Your task to perform on an android device: Clear all items from cart on bestbuy. Search for apple airpods pro on bestbuy, select the first entry, and add it to the cart. Image 0: 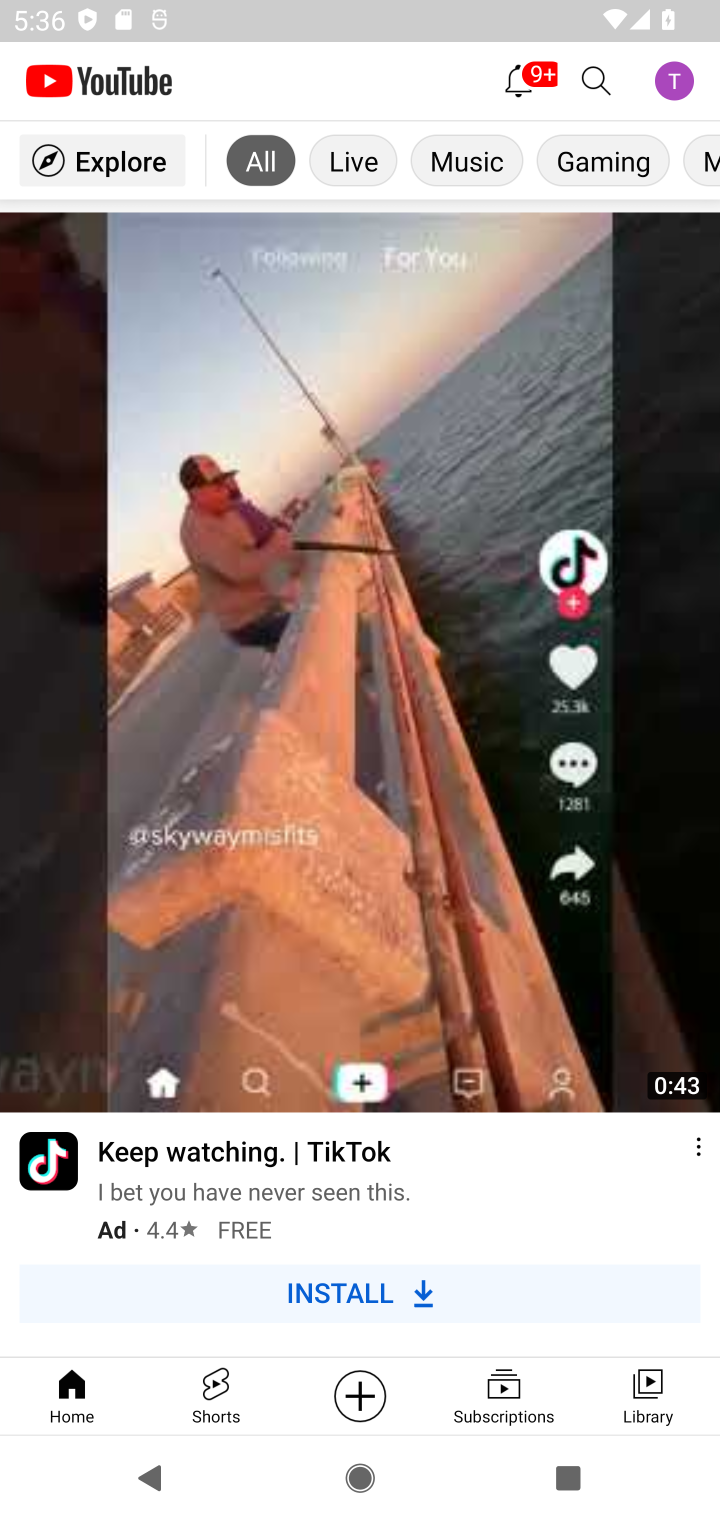
Step 0: press home button
Your task to perform on an android device: Clear all items from cart on bestbuy. Search for apple airpods pro on bestbuy, select the first entry, and add it to the cart. Image 1: 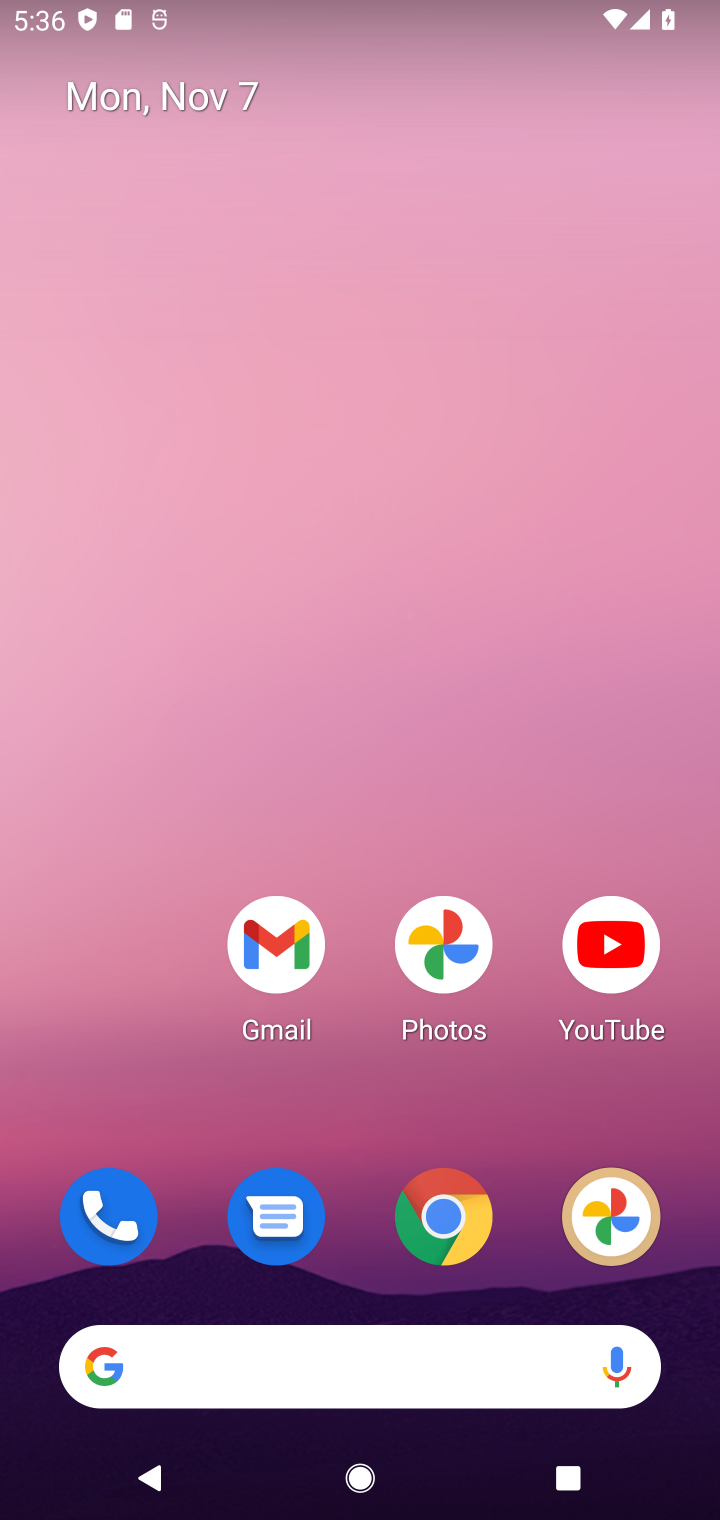
Step 1: drag from (355, 791) to (417, 0)
Your task to perform on an android device: Clear all items from cart on bestbuy. Search for apple airpods pro on bestbuy, select the first entry, and add it to the cart. Image 2: 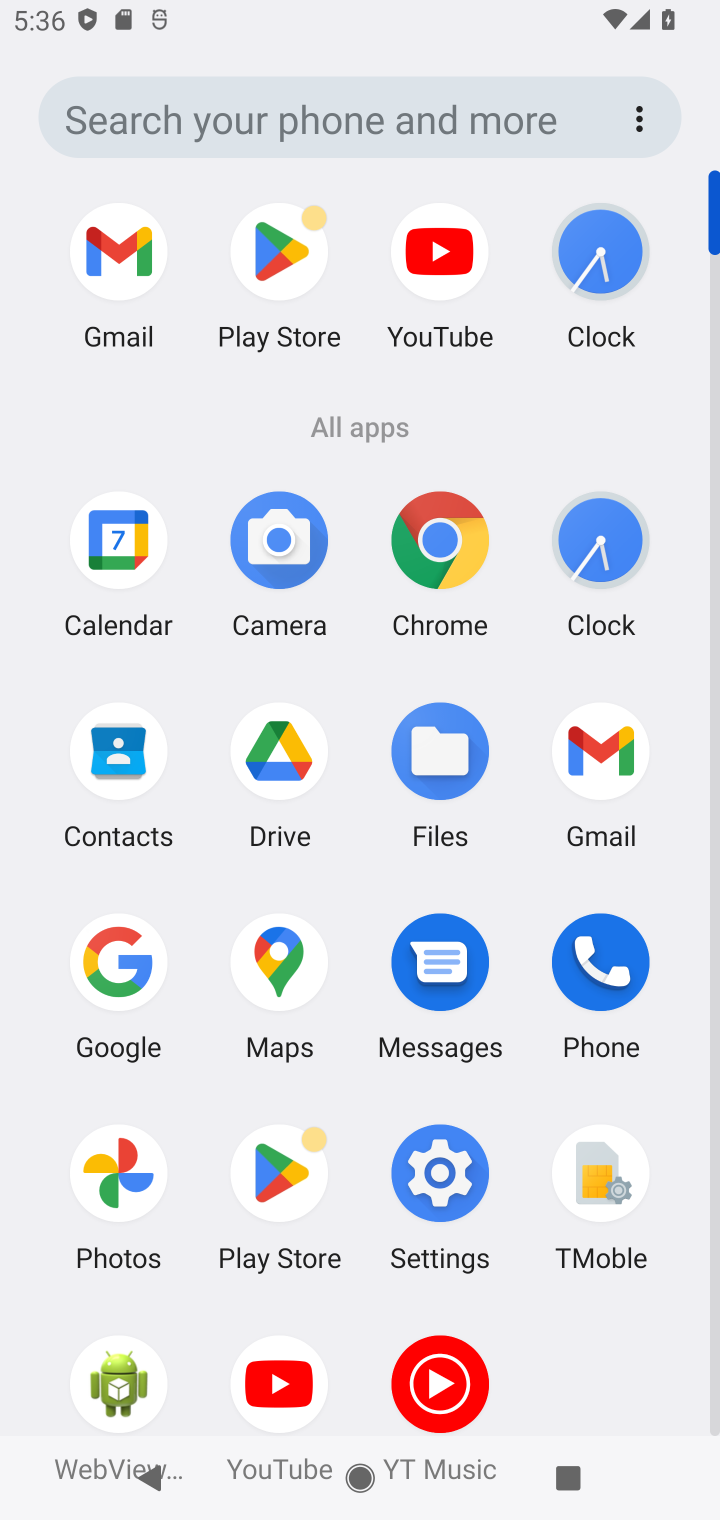
Step 2: click (441, 549)
Your task to perform on an android device: Clear all items from cart on bestbuy. Search for apple airpods pro on bestbuy, select the first entry, and add it to the cart. Image 3: 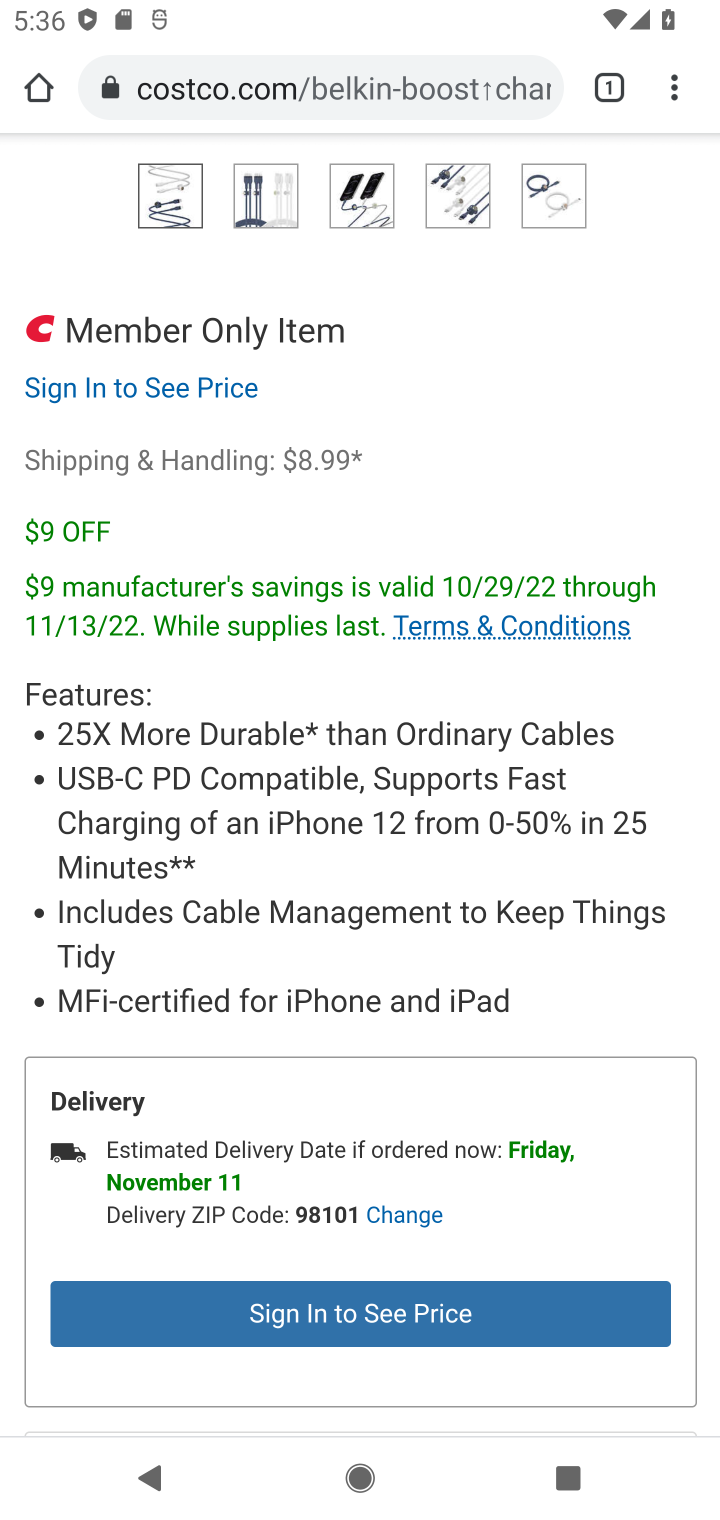
Step 3: click (330, 90)
Your task to perform on an android device: Clear all items from cart on bestbuy. Search for apple airpods pro on bestbuy, select the first entry, and add it to the cart. Image 4: 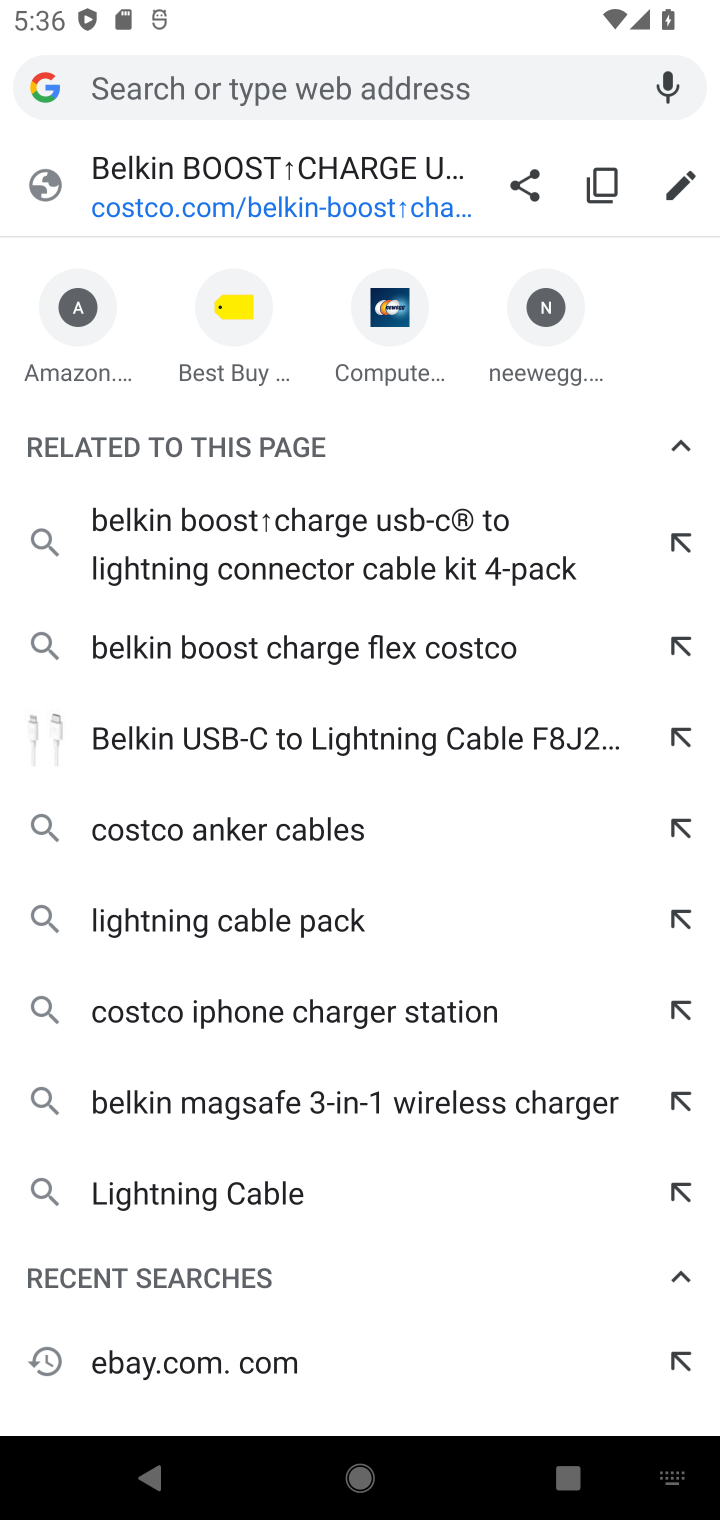
Step 4: type "bestbuy.com"
Your task to perform on an android device: Clear all items from cart on bestbuy. Search for apple airpods pro on bestbuy, select the first entry, and add it to the cart. Image 5: 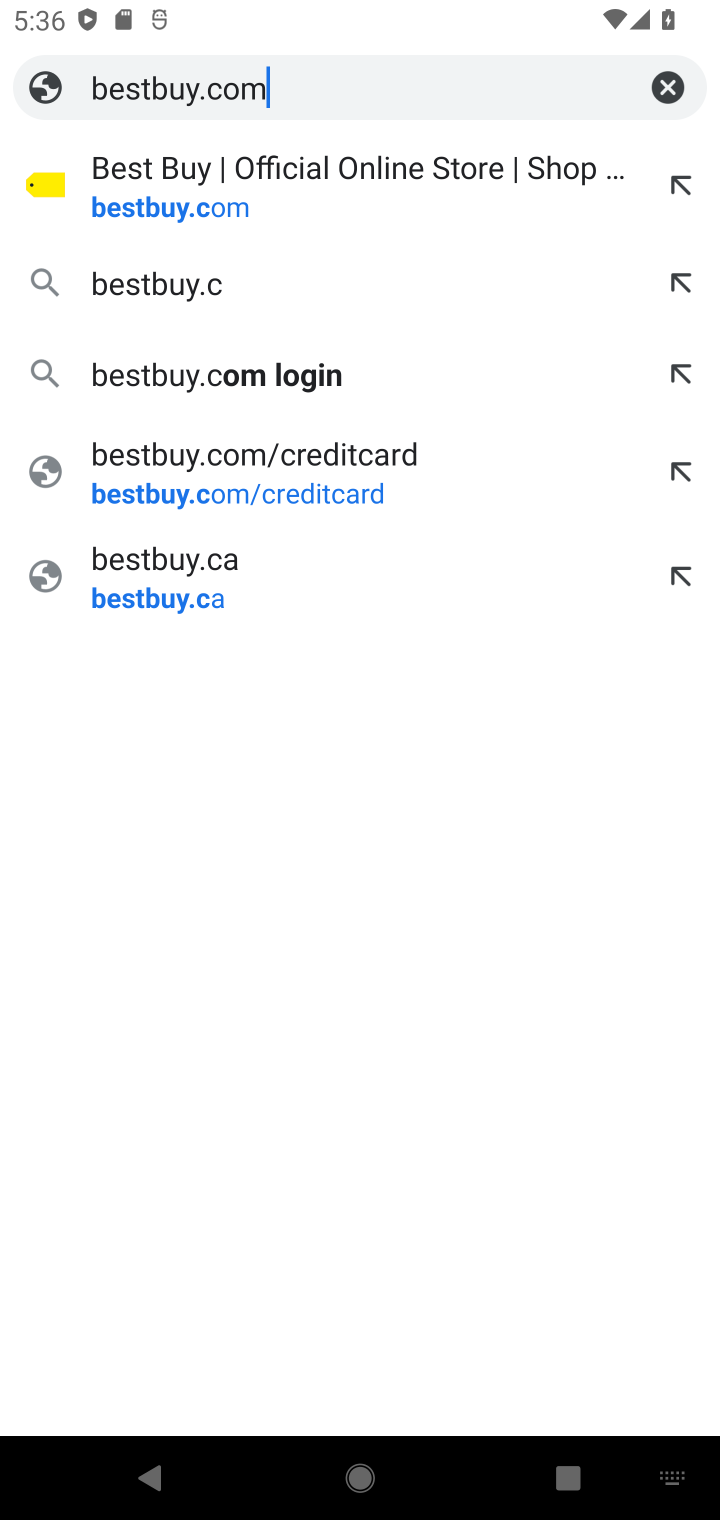
Step 5: press enter
Your task to perform on an android device: Clear all items from cart on bestbuy. Search for apple airpods pro on bestbuy, select the first entry, and add it to the cart. Image 6: 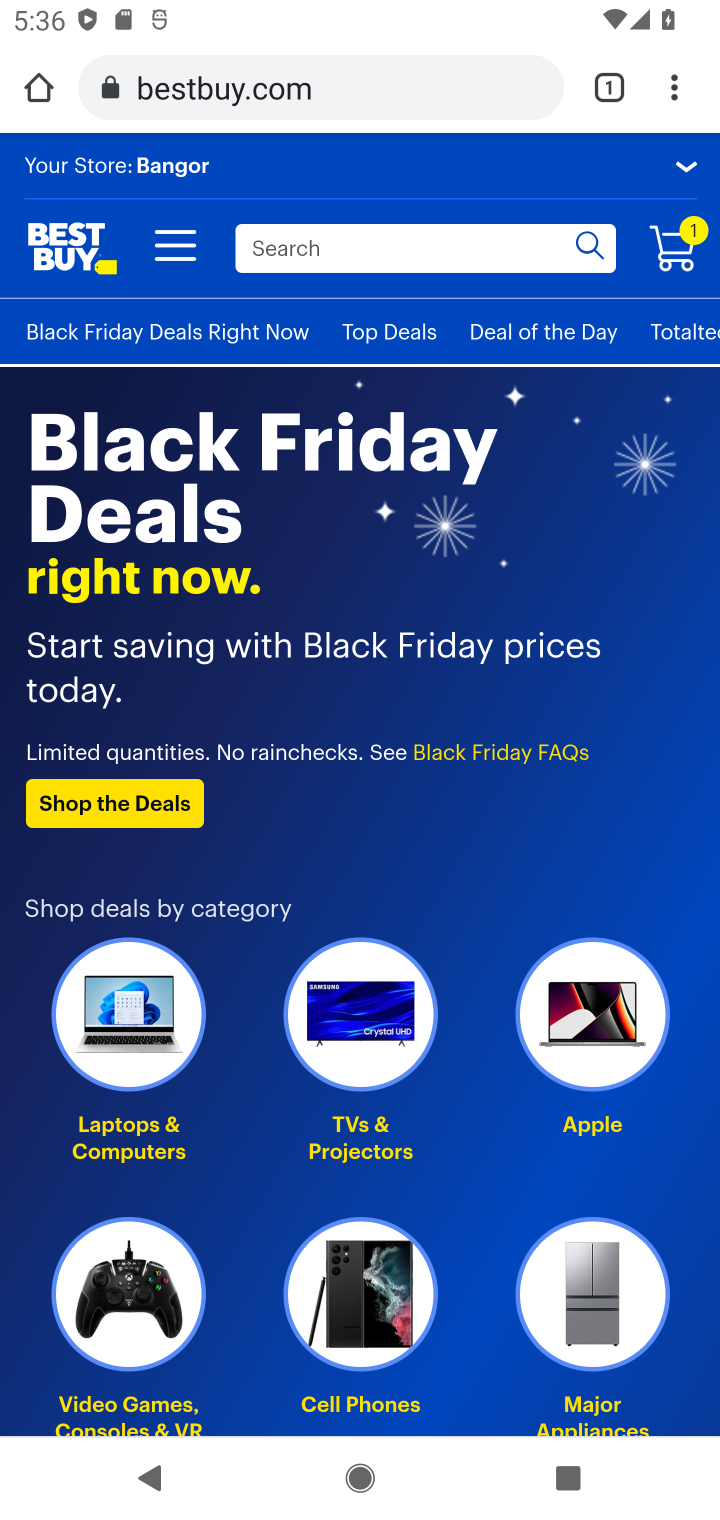
Step 6: click (700, 232)
Your task to perform on an android device: Clear all items from cart on bestbuy. Search for apple airpods pro on bestbuy, select the first entry, and add it to the cart. Image 7: 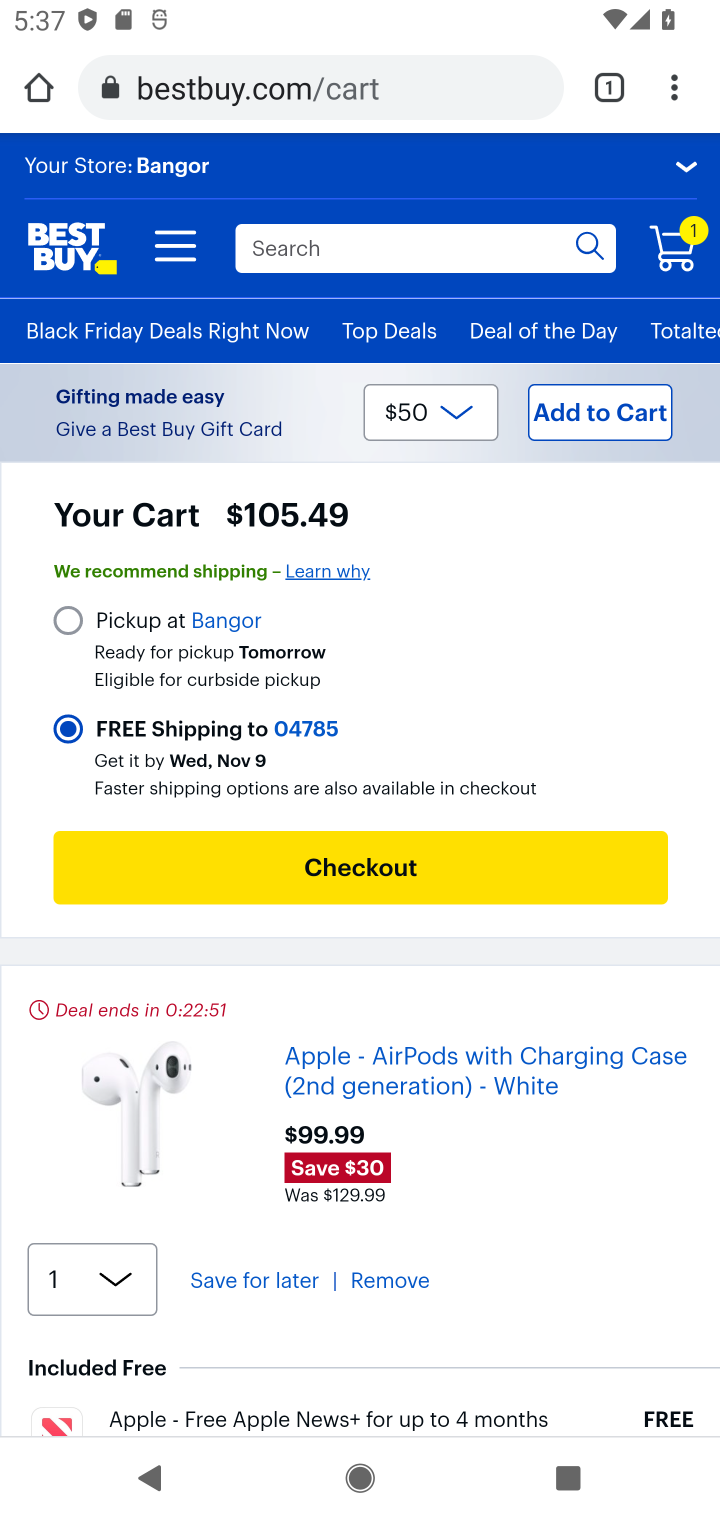
Step 7: click (391, 1283)
Your task to perform on an android device: Clear all items from cart on bestbuy. Search for apple airpods pro on bestbuy, select the first entry, and add it to the cart. Image 8: 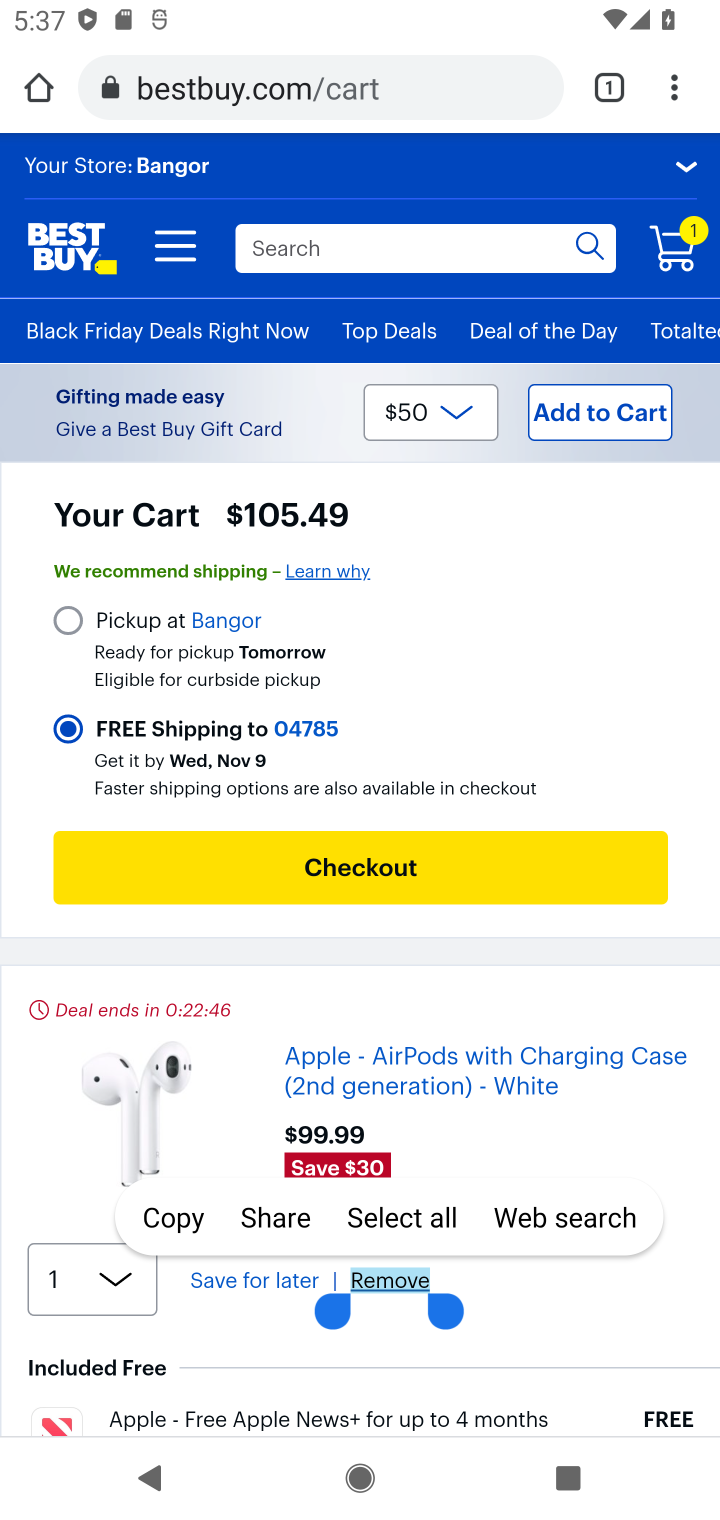
Step 8: click (391, 1283)
Your task to perform on an android device: Clear all items from cart on bestbuy. Search for apple airpods pro on bestbuy, select the first entry, and add it to the cart. Image 9: 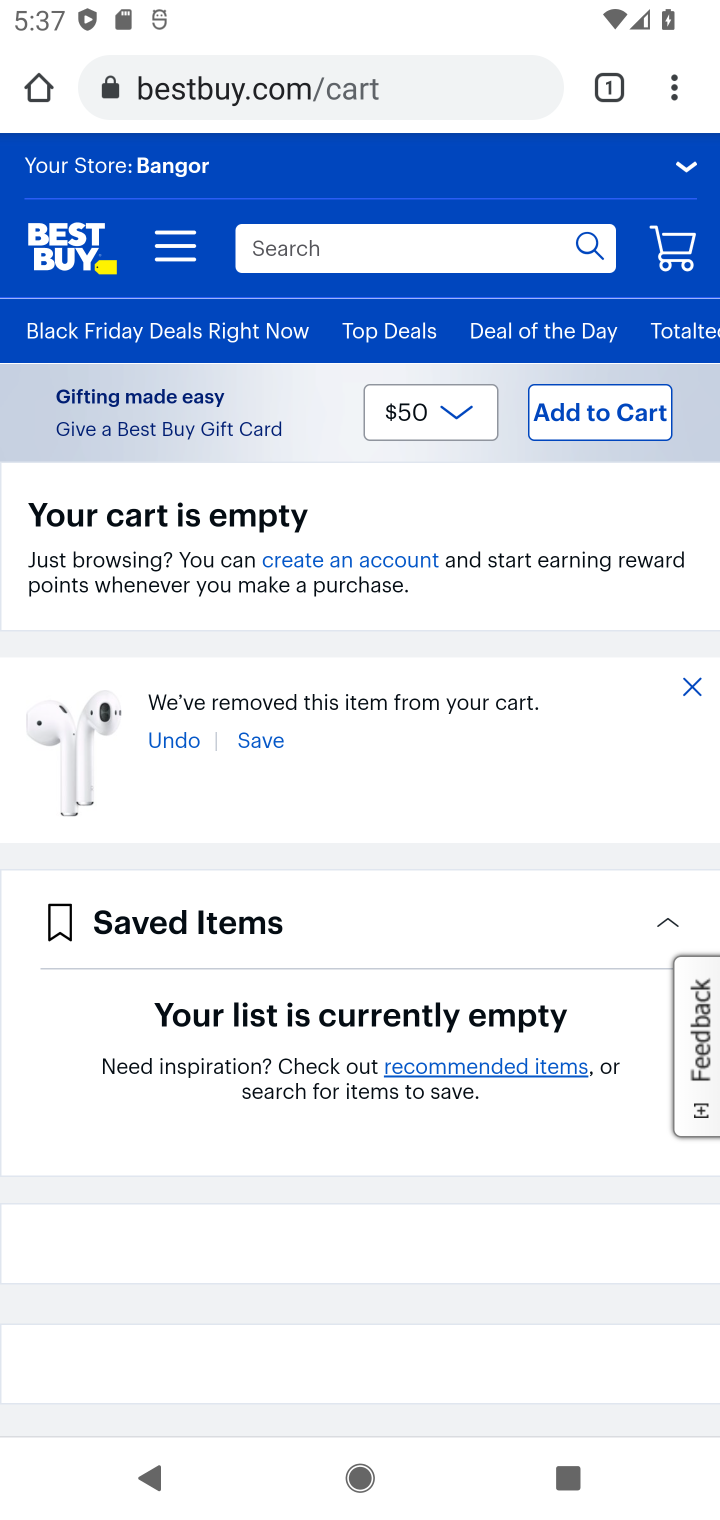
Step 9: click (409, 245)
Your task to perform on an android device: Clear all items from cart on bestbuy. Search for apple airpods pro on bestbuy, select the first entry, and add it to the cart. Image 10: 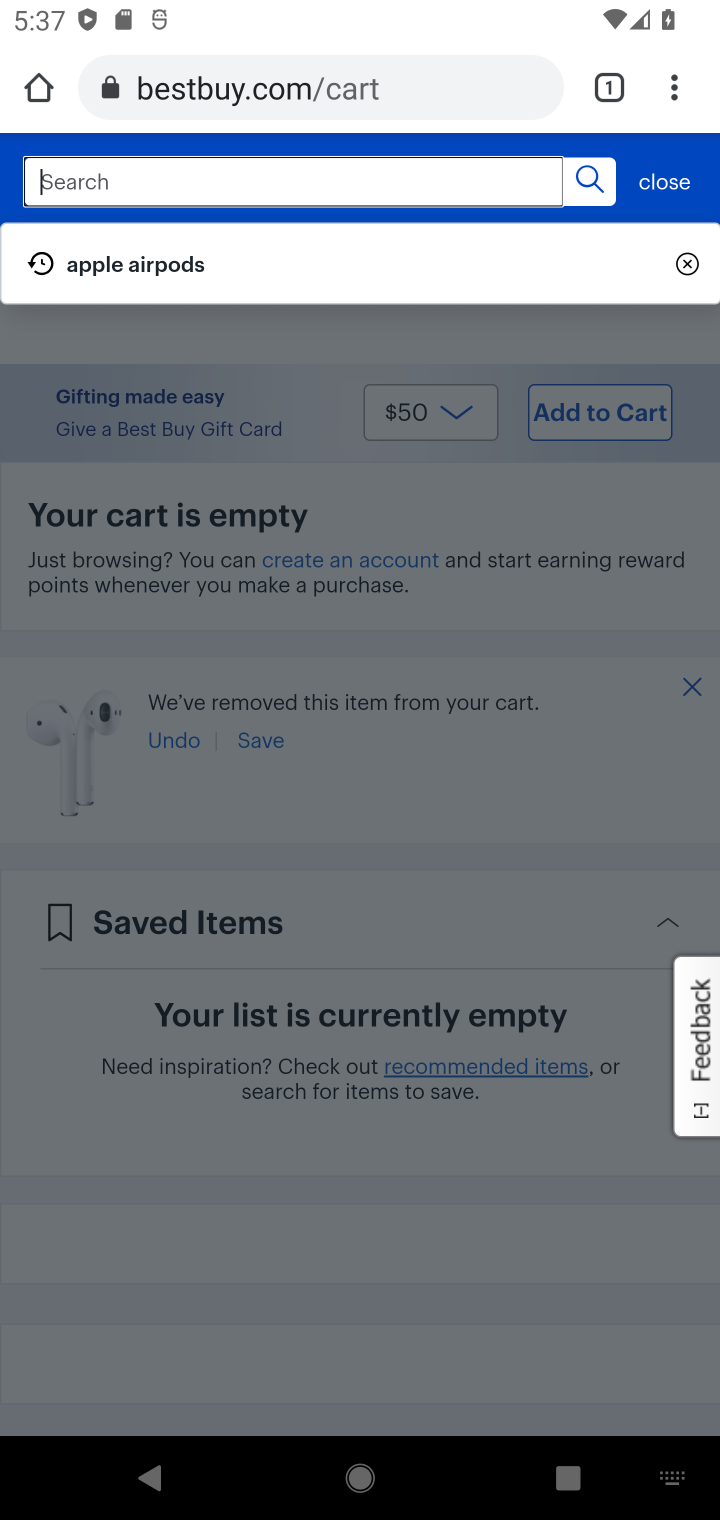
Step 10: type "apple airpods pro"
Your task to perform on an android device: Clear all items from cart on bestbuy. Search for apple airpods pro on bestbuy, select the first entry, and add it to the cart. Image 11: 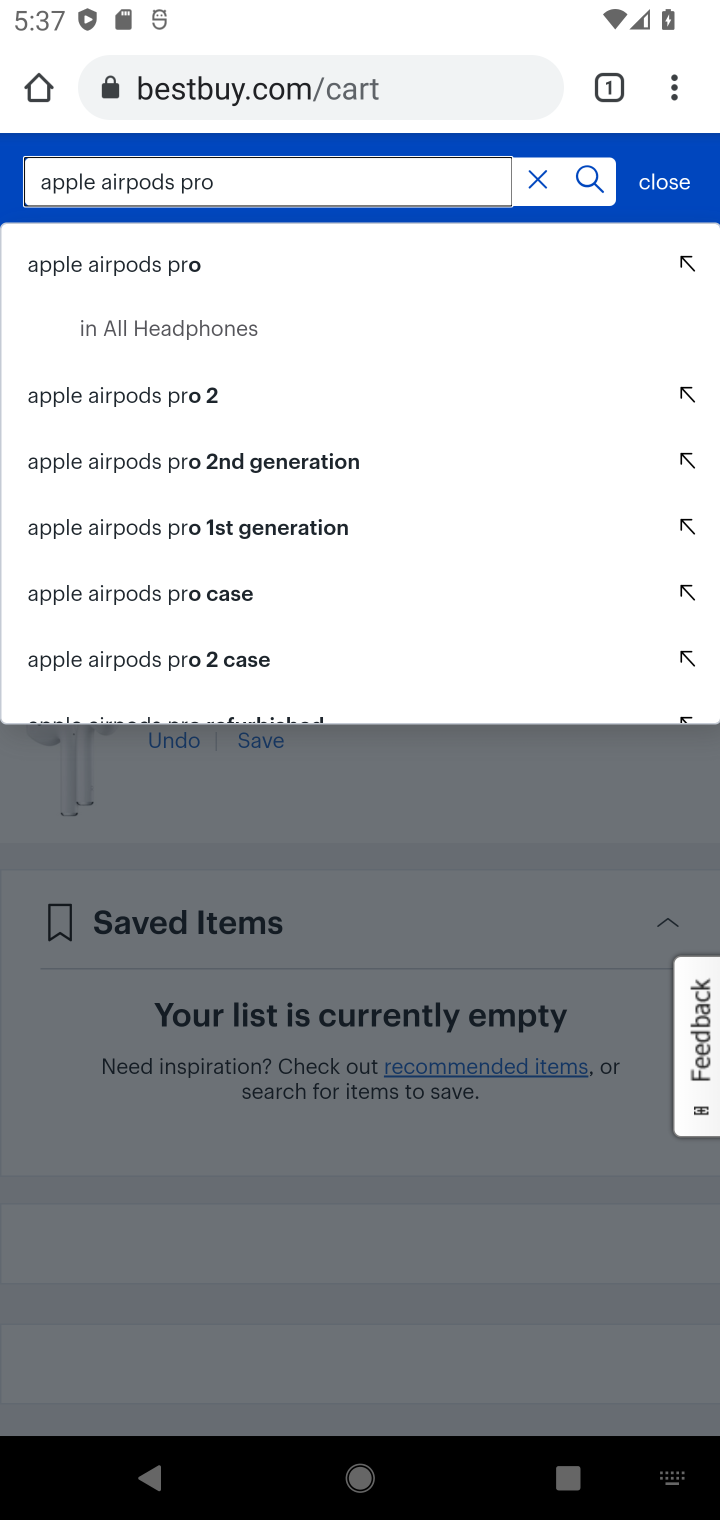
Step 11: press enter
Your task to perform on an android device: Clear all items from cart on bestbuy. Search for apple airpods pro on bestbuy, select the first entry, and add it to the cart. Image 12: 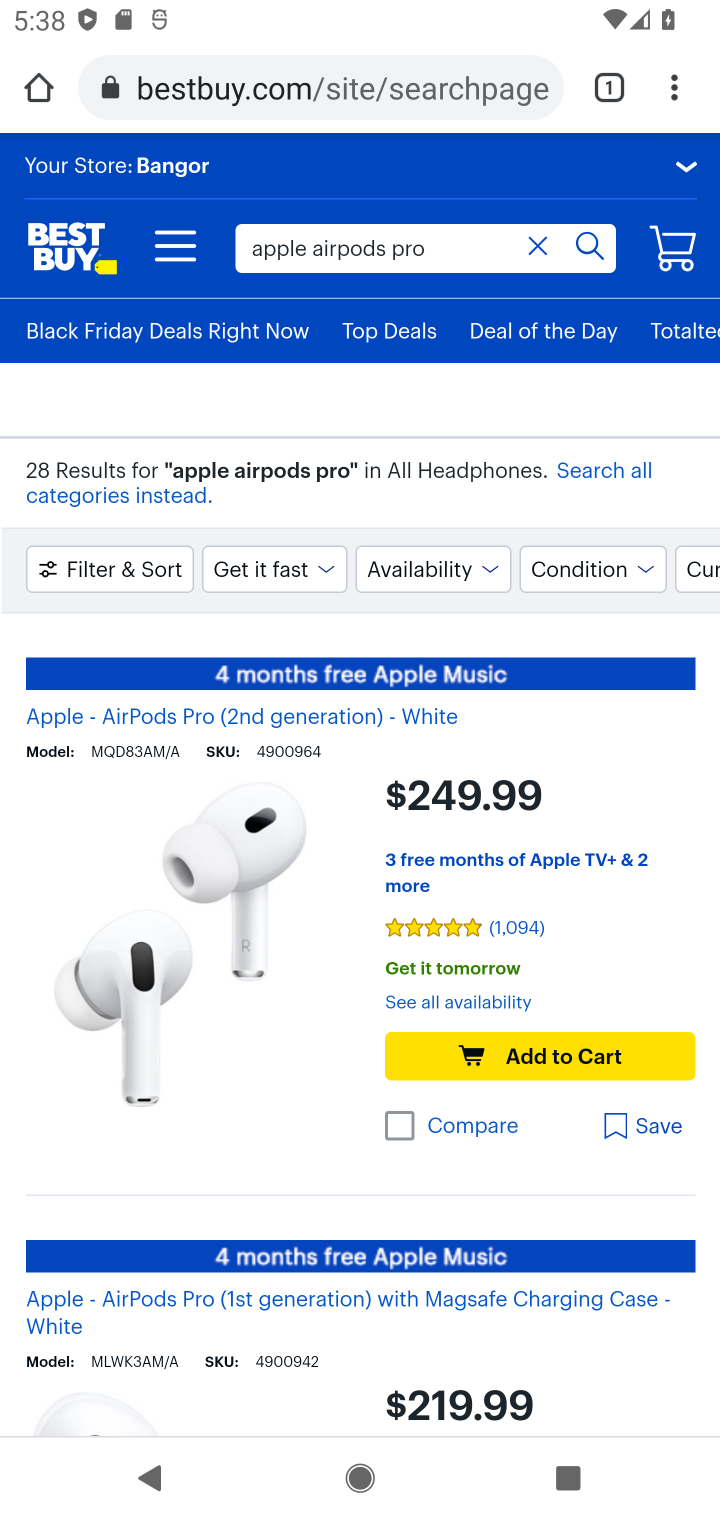
Step 12: click (573, 1047)
Your task to perform on an android device: Clear all items from cart on bestbuy. Search for apple airpods pro on bestbuy, select the first entry, and add it to the cart. Image 13: 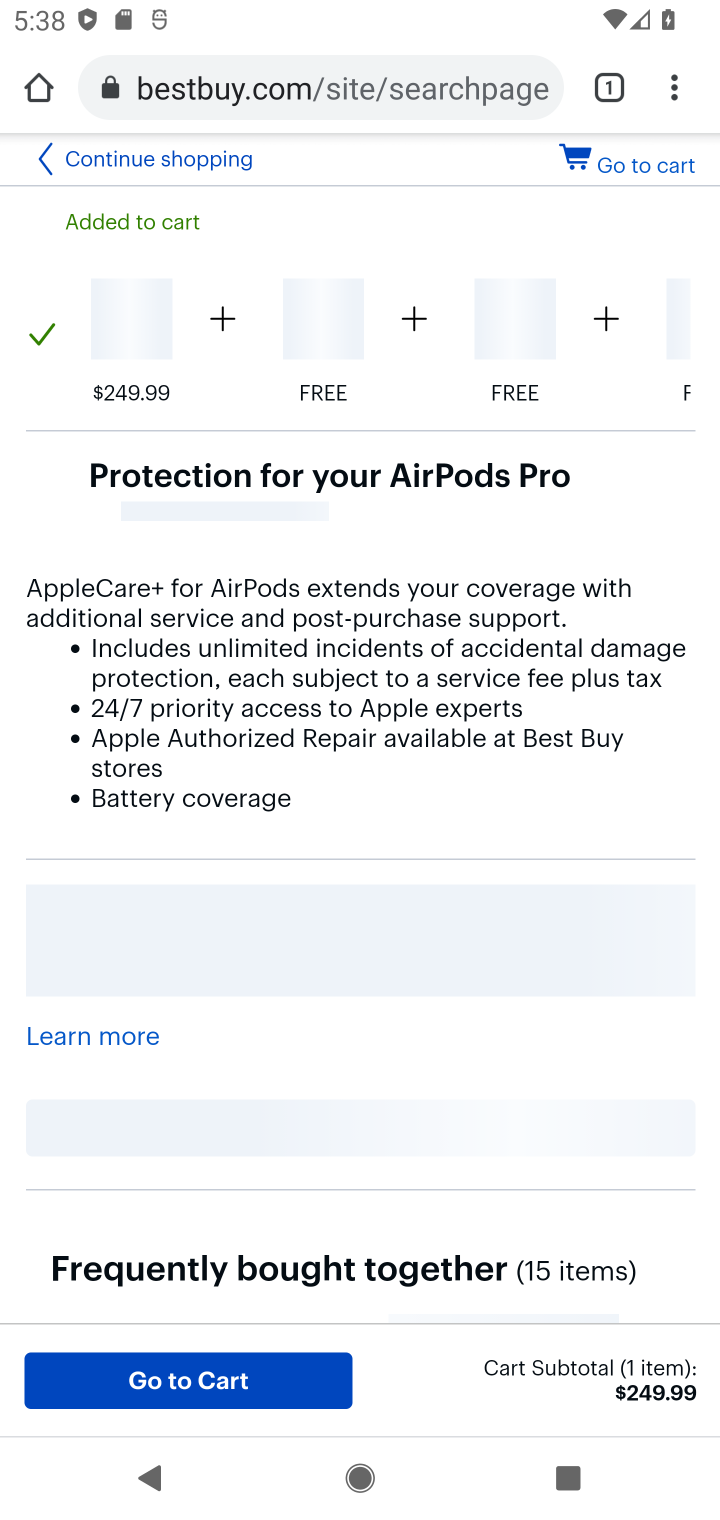
Step 13: task complete